Your task to perform on an android device: check storage Image 0: 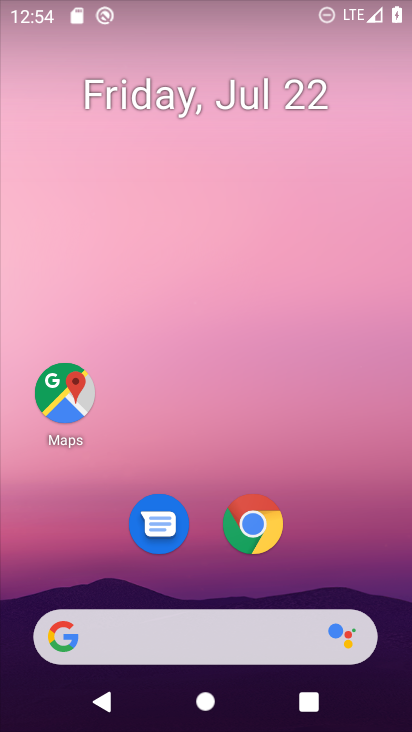
Step 0: drag from (334, 537) to (360, 14)
Your task to perform on an android device: check storage Image 1: 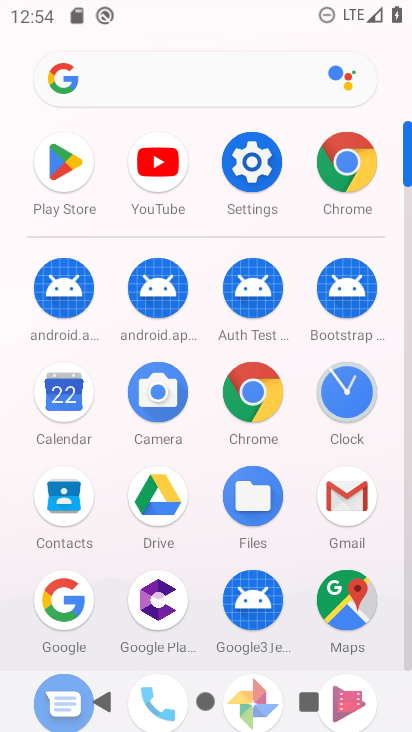
Step 1: click (261, 163)
Your task to perform on an android device: check storage Image 2: 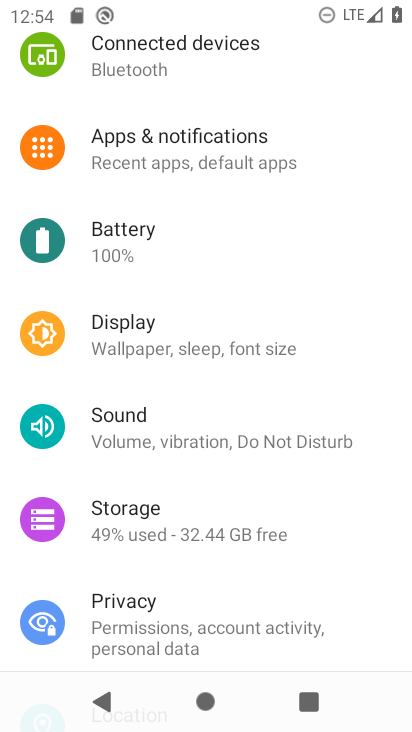
Step 2: click (214, 529)
Your task to perform on an android device: check storage Image 3: 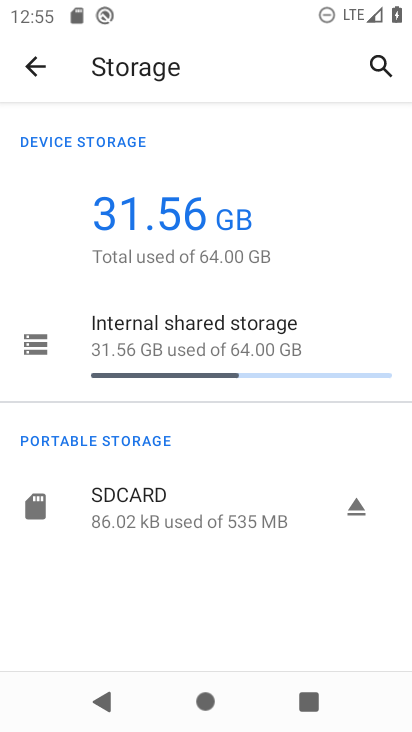
Step 3: task complete